Your task to perform on an android device: Add usb-c to the cart on walmart.com, then select checkout. Image 0: 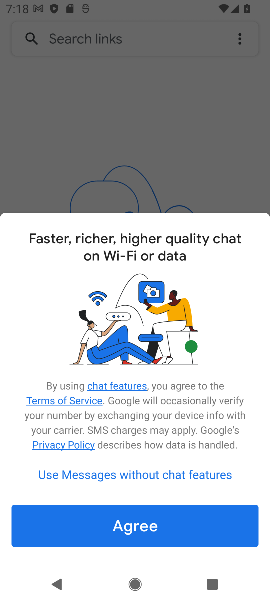
Step 0: press home button
Your task to perform on an android device: Add usb-c to the cart on walmart.com, then select checkout. Image 1: 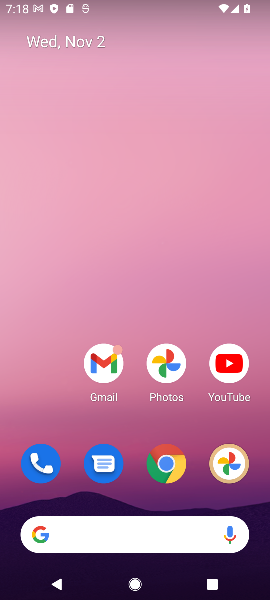
Step 1: click (160, 464)
Your task to perform on an android device: Add usb-c to the cart on walmart.com, then select checkout. Image 2: 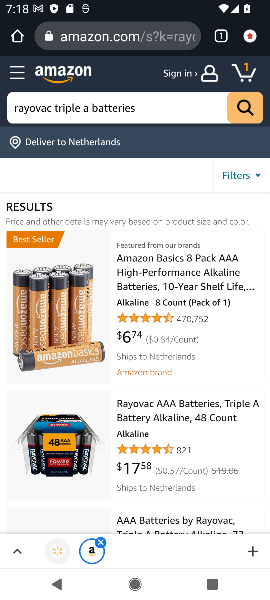
Step 2: click (111, 35)
Your task to perform on an android device: Add usb-c to the cart on walmart.com, then select checkout. Image 3: 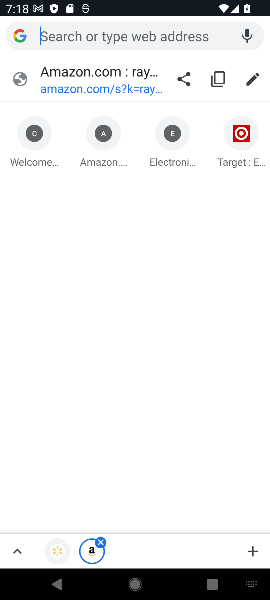
Step 3: type "walmart.com"
Your task to perform on an android device: Add usb-c to the cart on walmart.com, then select checkout. Image 4: 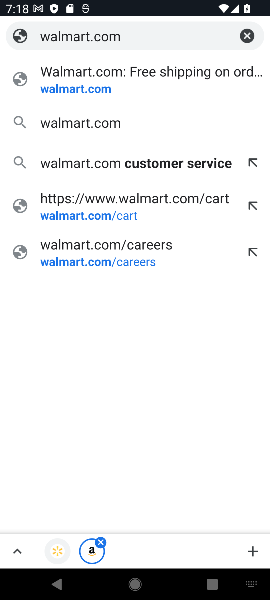
Step 4: click (65, 91)
Your task to perform on an android device: Add usb-c to the cart on walmart.com, then select checkout. Image 5: 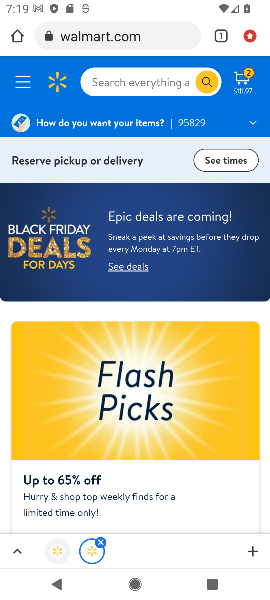
Step 5: click (167, 82)
Your task to perform on an android device: Add usb-c to the cart on walmart.com, then select checkout. Image 6: 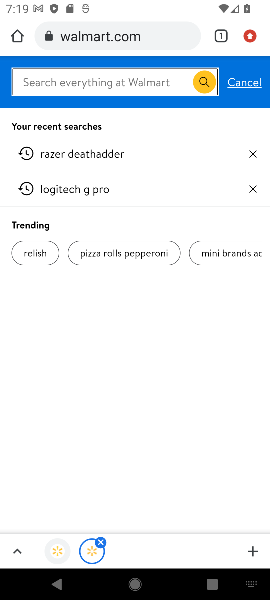
Step 6: type "usb-c"
Your task to perform on an android device: Add usb-c to the cart on walmart.com, then select checkout. Image 7: 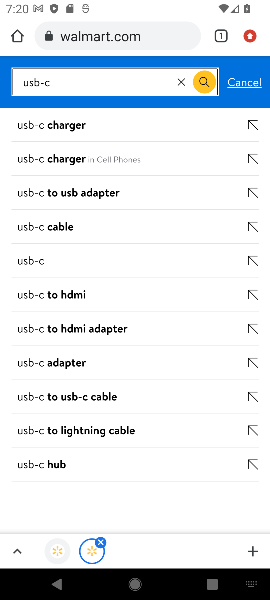
Step 7: click (43, 124)
Your task to perform on an android device: Add usb-c to the cart on walmart.com, then select checkout. Image 8: 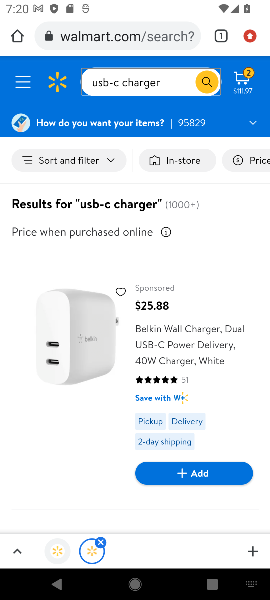
Step 8: click (187, 474)
Your task to perform on an android device: Add usb-c to the cart on walmart.com, then select checkout. Image 9: 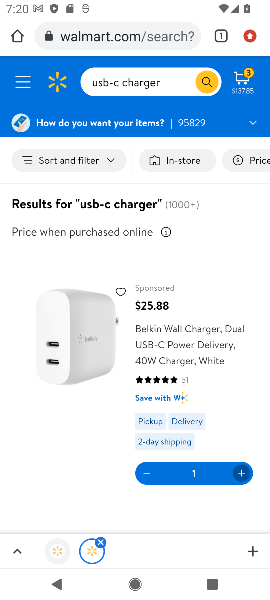
Step 9: drag from (76, 426) to (92, 323)
Your task to perform on an android device: Add usb-c to the cart on walmart.com, then select checkout. Image 10: 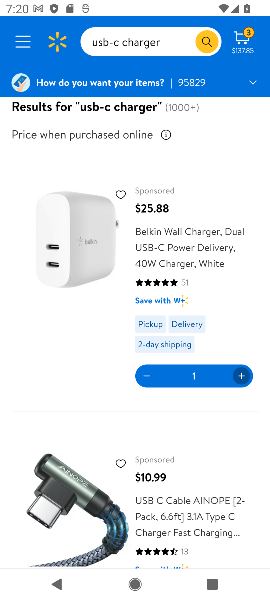
Step 10: drag from (89, 204) to (67, 315)
Your task to perform on an android device: Add usb-c to the cart on walmart.com, then select checkout. Image 11: 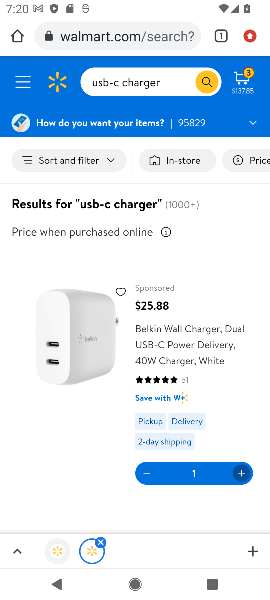
Step 11: click (244, 76)
Your task to perform on an android device: Add usb-c to the cart on walmart.com, then select checkout. Image 12: 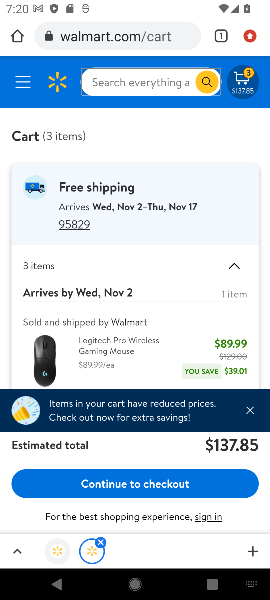
Step 12: click (112, 486)
Your task to perform on an android device: Add usb-c to the cart on walmart.com, then select checkout. Image 13: 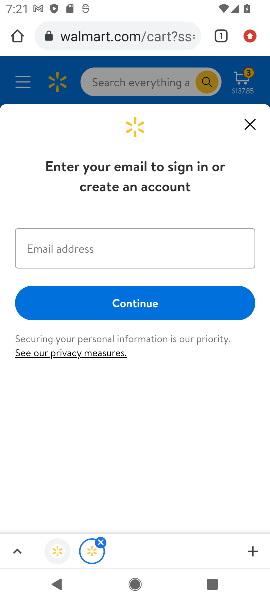
Step 13: task complete